Your task to perform on an android device: Is it going to rain today? Image 0: 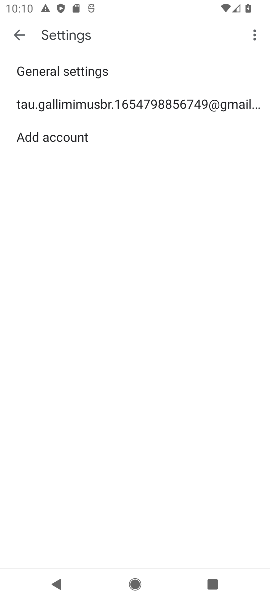
Step 0: press home button
Your task to perform on an android device: Is it going to rain today? Image 1: 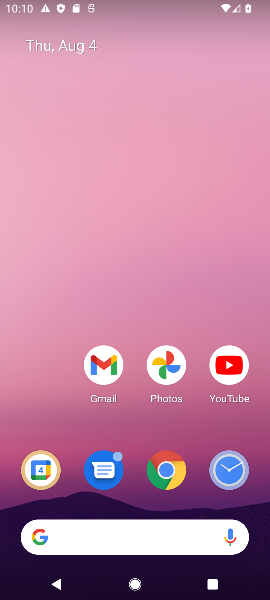
Step 1: click (103, 529)
Your task to perform on an android device: Is it going to rain today? Image 2: 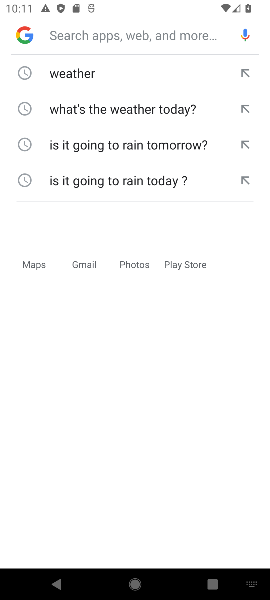
Step 2: type "is it going to rain today"
Your task to perform on an android device: Is it going to rain today? Image 3: 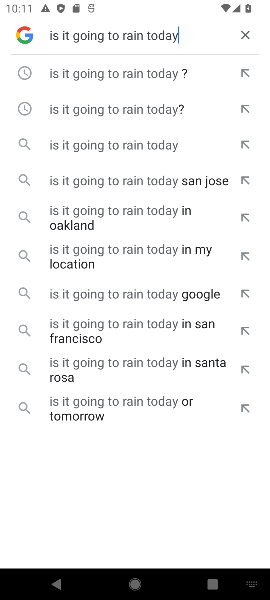
Step 3: click (186, 70)
Your task to perform on an android device: Is it going to rain today? Image 4: 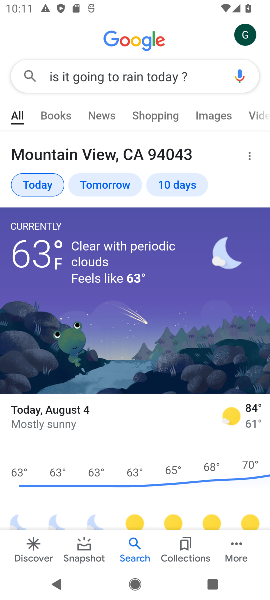
Step 4: task complete